Your task to perform on an android device: delete browsing data in the chrome app Image 0: 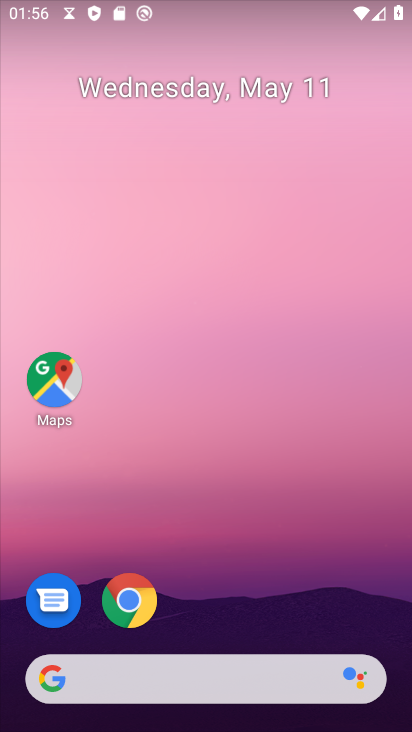
Step 0: drag from (263, 561) to (275, 331)
Your task to perform on an android device: delete browsing data in the chrome app Image 1: 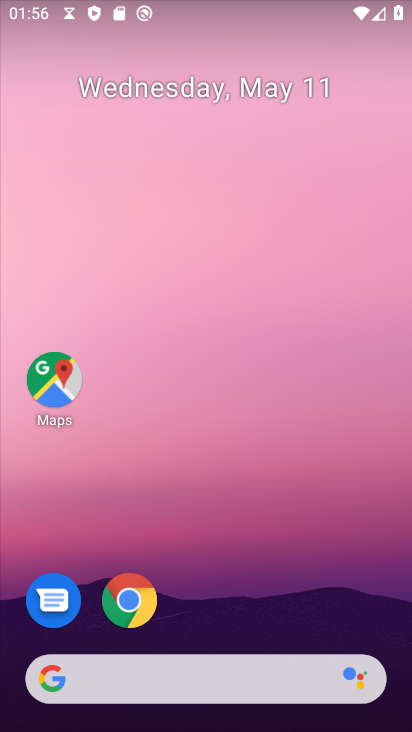
Step 1: drag from (243, 591) to (287, 270)
Your task to perform on an android device: delete browsing data in the chrome app Image 2: 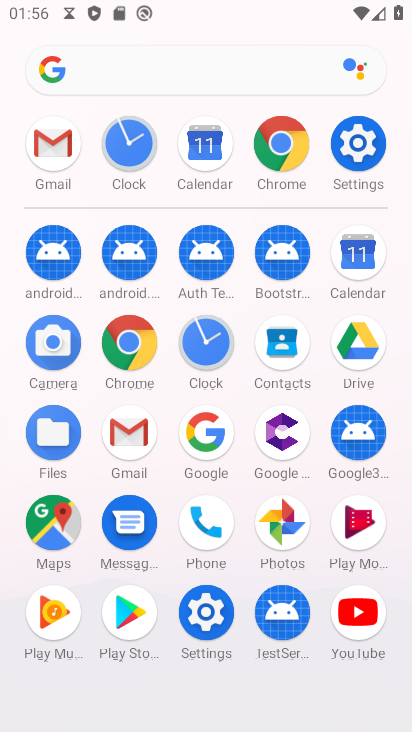
Step 2: click (288, 141)
Your task to perform on an android device: delete browsing data in the chrome app Image 3: 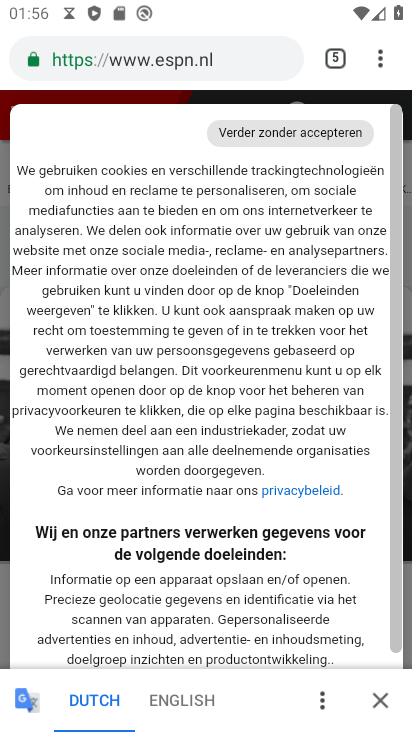
Step 3: click (364, 55)
Your task to perform on an android device: delete browsing data in the chrome app Image 4: 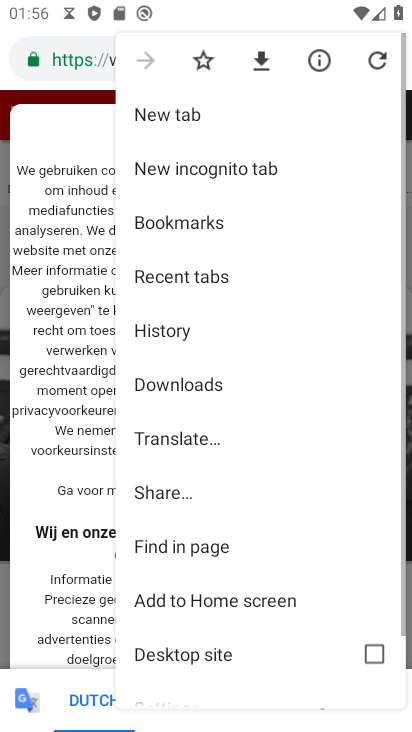
Step 4: click (189, 324)
Your task to perform on an android device: delete browsing data in the chrome app Image 5: 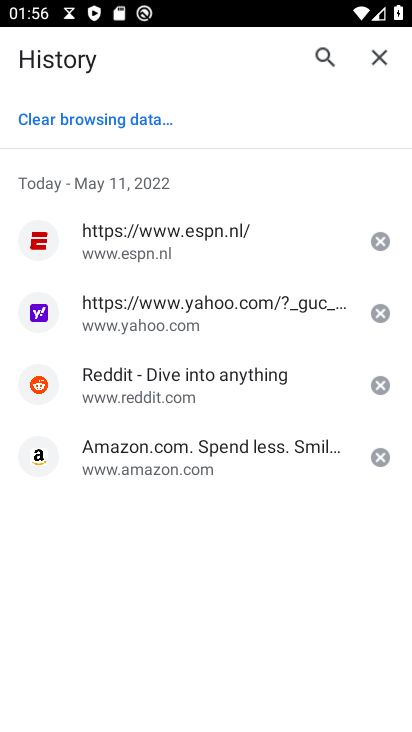
Step 5: click (90, 111)
Your task to perform on an android device: delete browsing data in the chrome app Image 6: 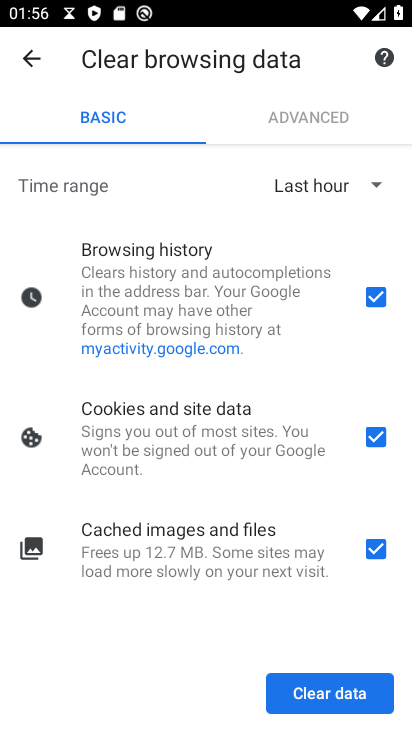
Step 6: click (327, 691)
Your task to perform on an android device: delete browsing data in the chrome app Image 7: 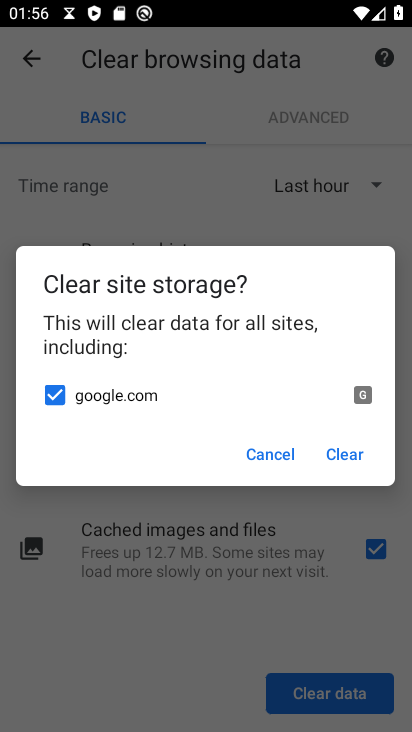
Step 7: click (343, 448)
Your task to perform on an android device: delete browsing data in the chrome app Image 8: 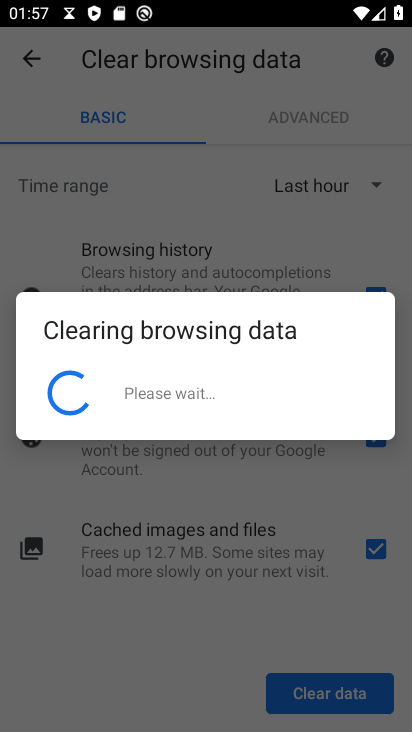
Step 8: task complete